Your task to perform on an android device: Look up the best rated wireless earbuds on Ali Express Image 0: 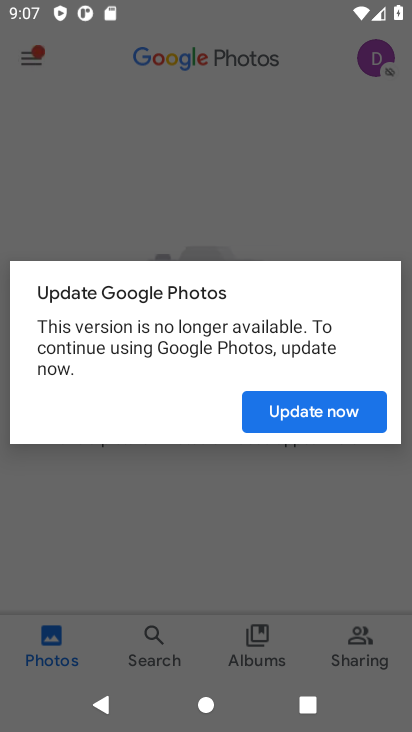
Step 0: press home button
Your task to perform on an android device: Look up the best rated wireless earbuds on Ali Express Image 1: 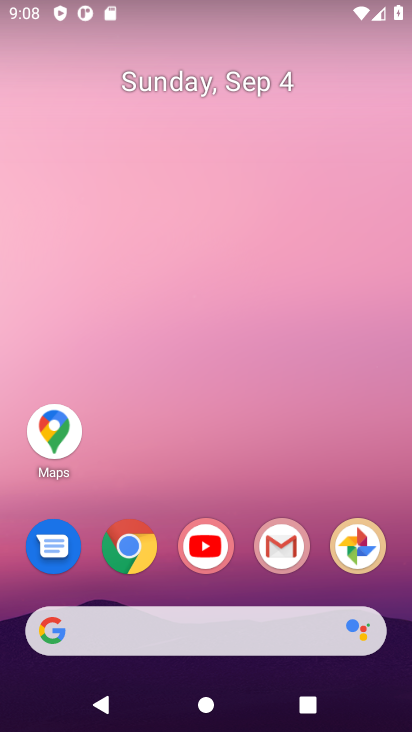
Step 1: click (125, 548)
Your task to perform on an android device: Look up the best rated wireless earbuds on Ali Express Image 2: 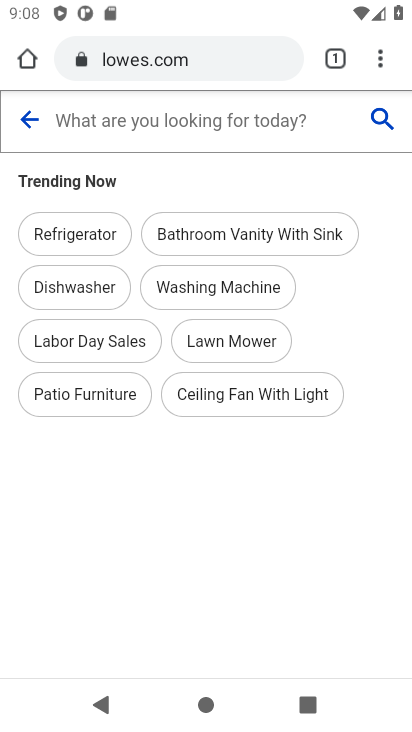
Step 2: click (124, 57)
Your task to perform on an android device: Look up the best rated wireless earbuds on Ali Express Image 3: 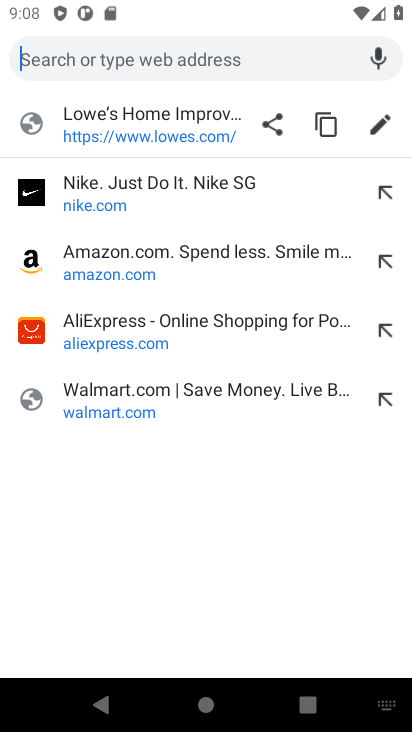
Step 3: type "aliexpress"
Your task to perform on an android device: Look up the best rated wireless earbuds on Ali Express Image 4: 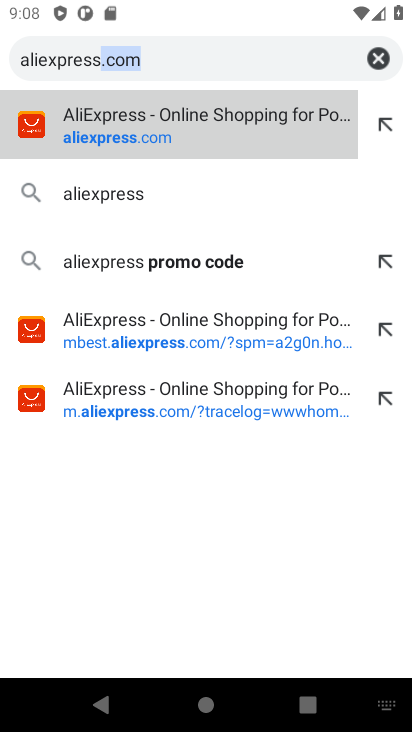
Step 4: click (90, 142)
Your task to perform on an android device: Look up the best rated wireless earbuds on Ali Express Image 5: 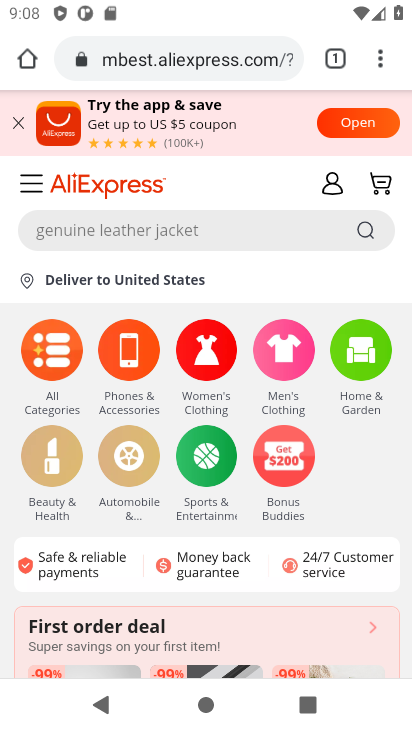
Step 5: click (219, 239)
Your task to perform on an android device: Look up the best rated wireless earbuds on Ali Express Image 6: 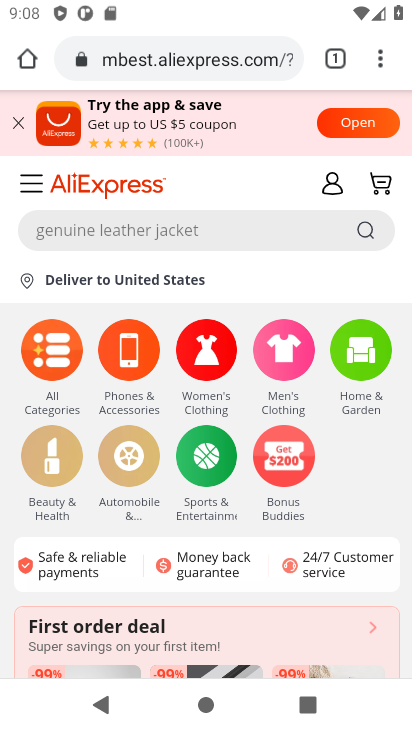
Step 6: click (351, 230)
Your task to perform on an android device: Look up the best rated wireless earbuds on Ali Express Image 7: 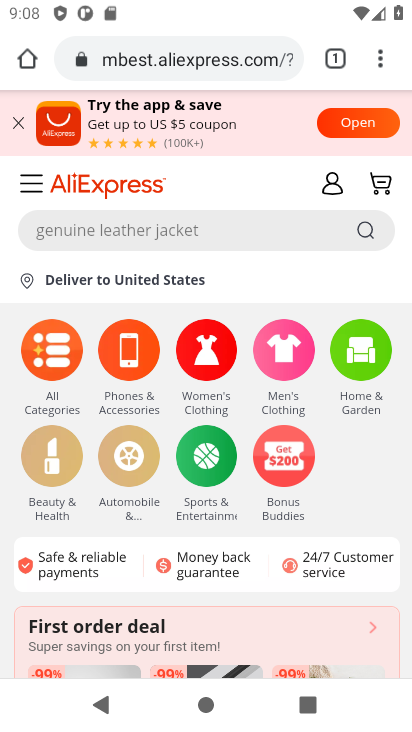
Step 7: click (365, 231)
Your task to perform on an android device: Look up the best rated wireless earbuds on Ali Express Image 8: 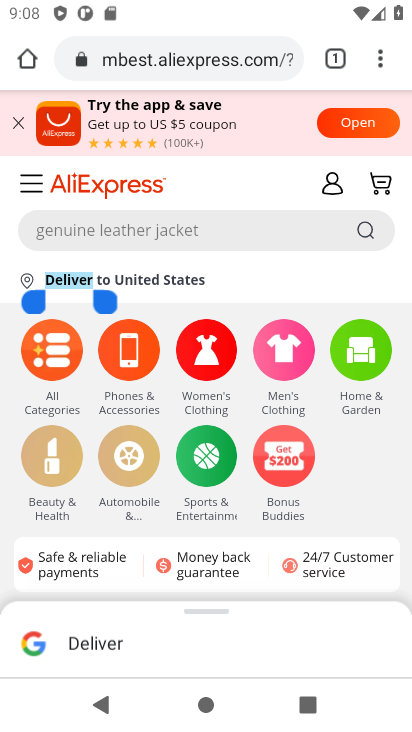
Step 8: click (286, 242)
Your task to perform on an android device: Look up the best rated wireless earbuds on Ali Express Image 9: 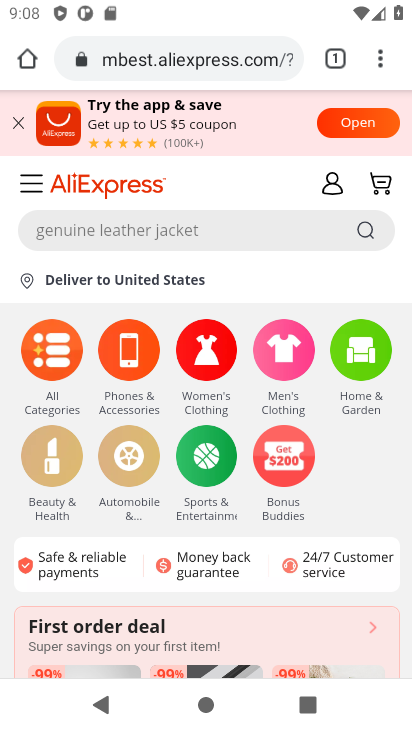
Step 9: click (283, 227)
Your task to perform on an android device: Look up the best rated wireless earbuds on Ali Express Image 10: 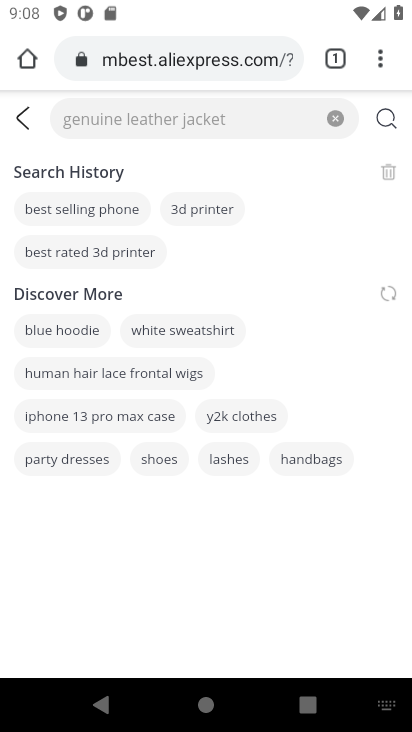
Step 10: click (142, 116)
Your task to perform on an android device: Look up the best rated wireless earbuds on Ali Express Image 11: 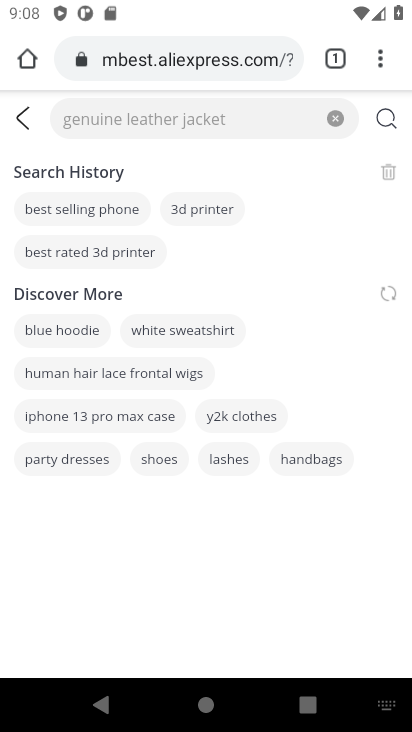
Step 11: type "best rated wireless earbuds "
Your task to perform on an android device: Look up the best rated wireless earbuds on Ali Express Image 12: 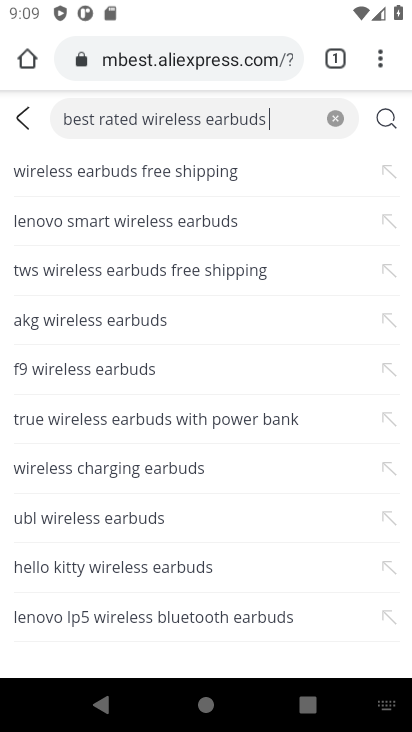
Step 12: click (385, 112)
Your task to perform on an android device: Look up the best rated wireless earbuds on Ali Express Image 13: 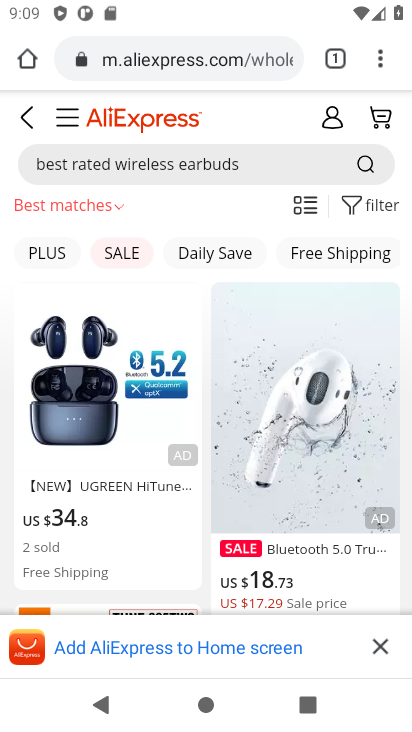
Step 13: task complete